Your task to perform on an android device: install app "Facebook" Image 0: 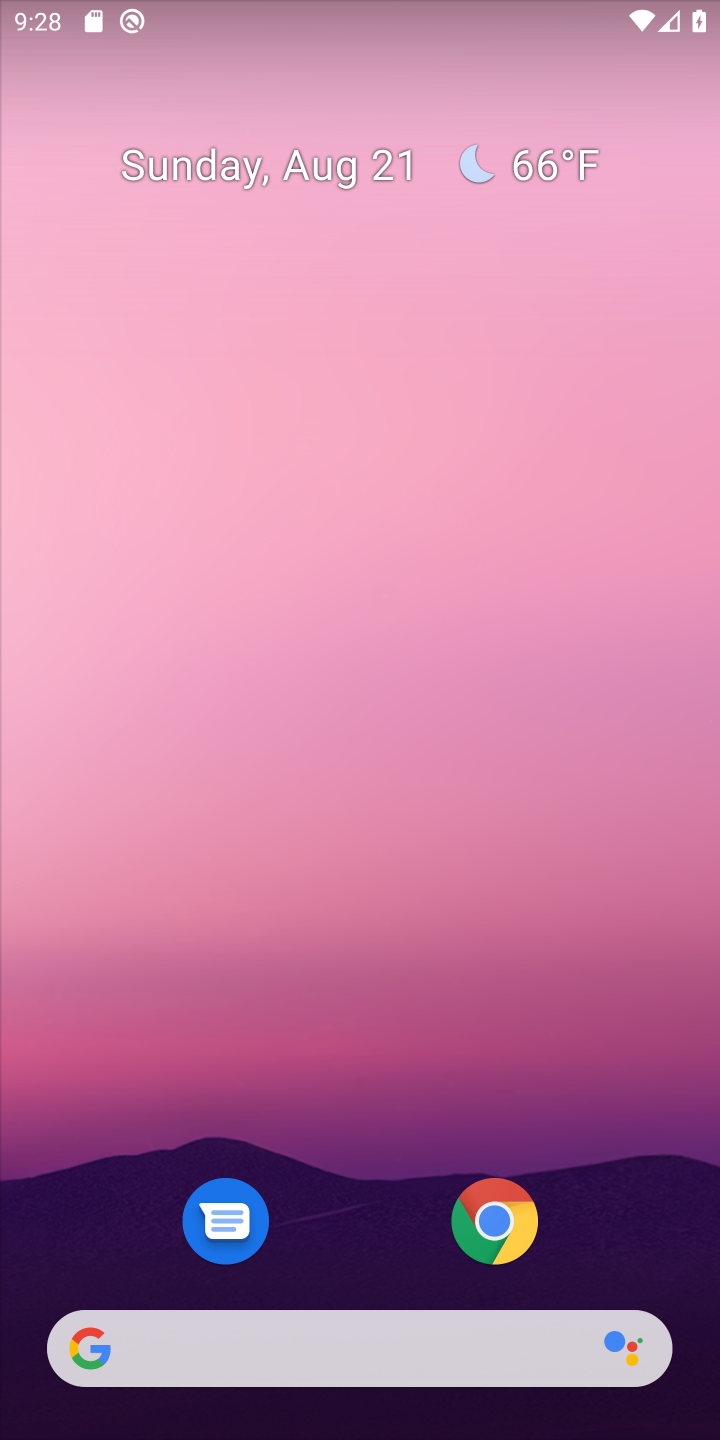
Step 0: drag from (356, 1198) to (316, 316)
Your task to perform on an android device: install app "Facebook" Image 1: 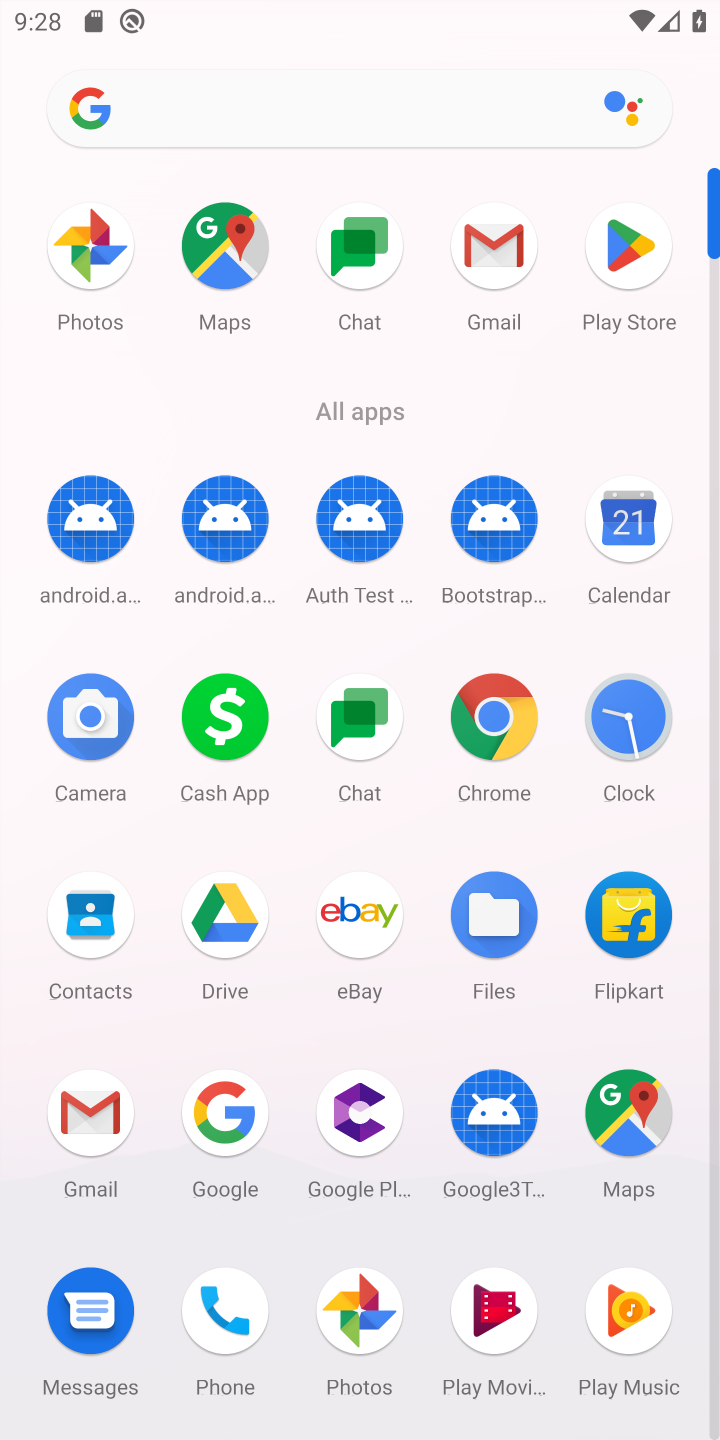
Step 1: click (611, 235)
Your task to perform on an android device: install app "Facebook" Image 2: 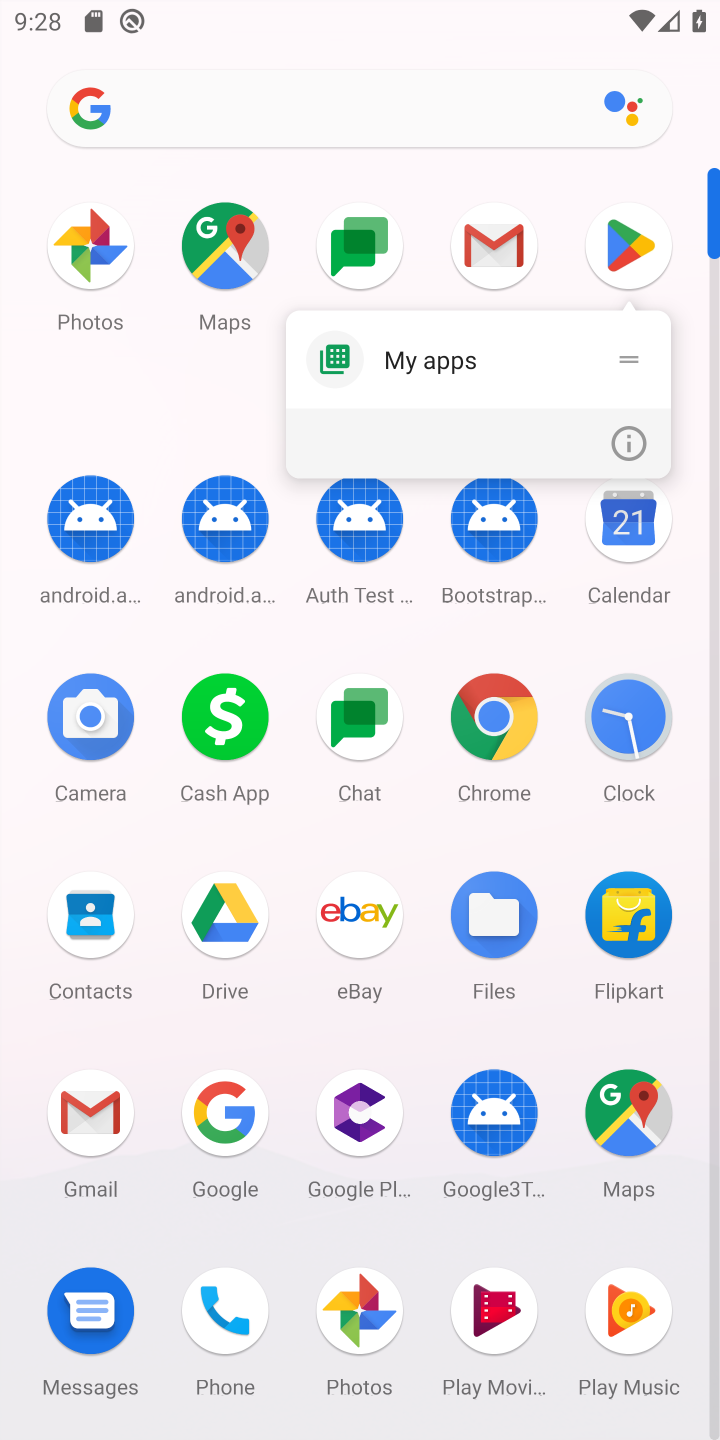
Step 2: click (611, 235)
Your task to perform on an android device: install app "Facebook" Image 3: 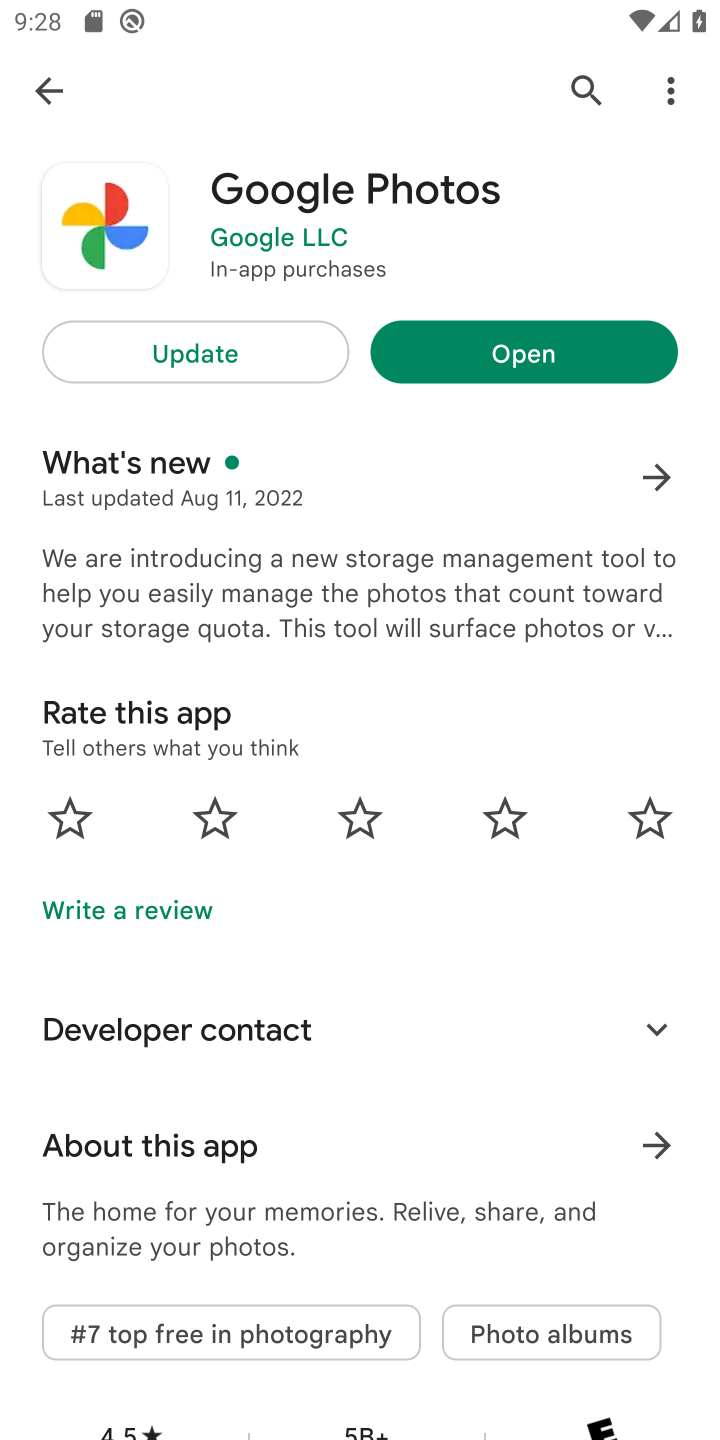
Step 3: click (569, 96)
Your task to perform on an android device: install app "Facebook" Image 4: 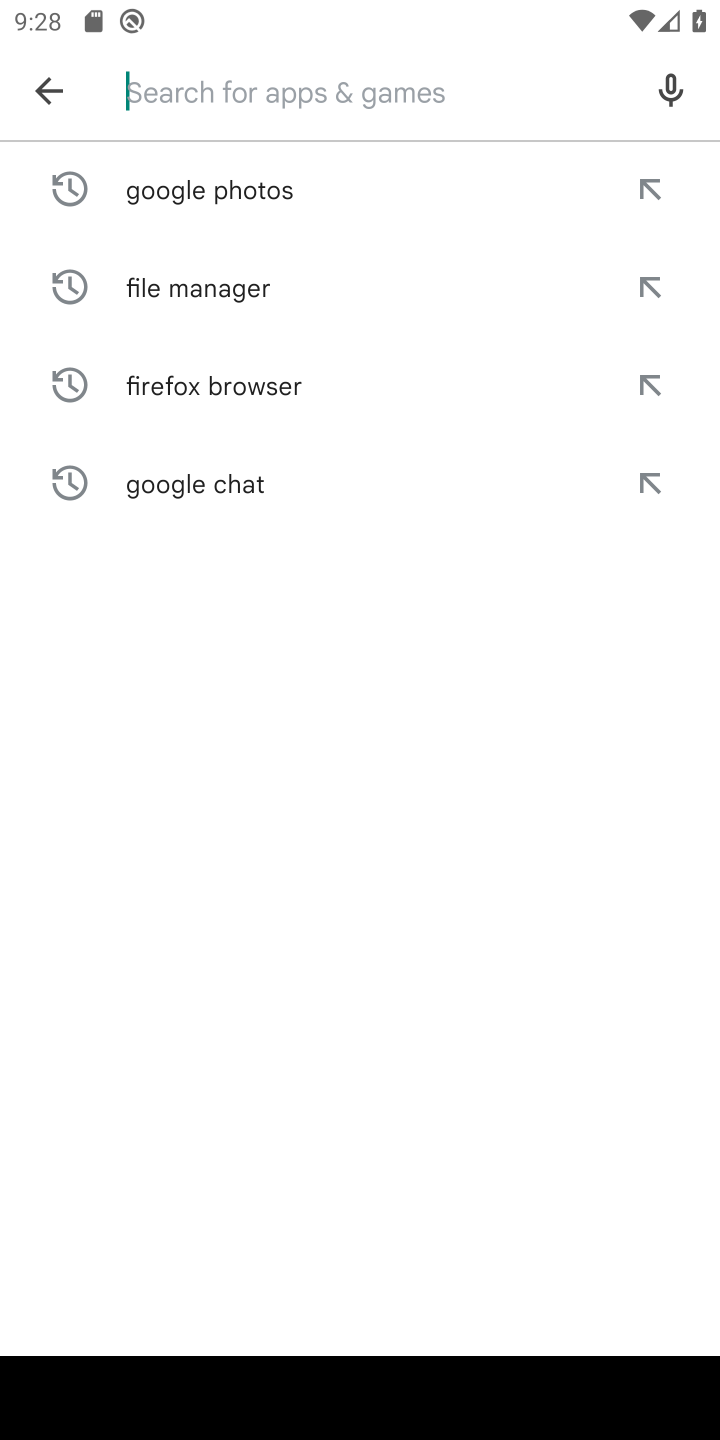
Step 4: type "Facebook"
Your task to perform on an android device: install app "Facebook" Image 5: 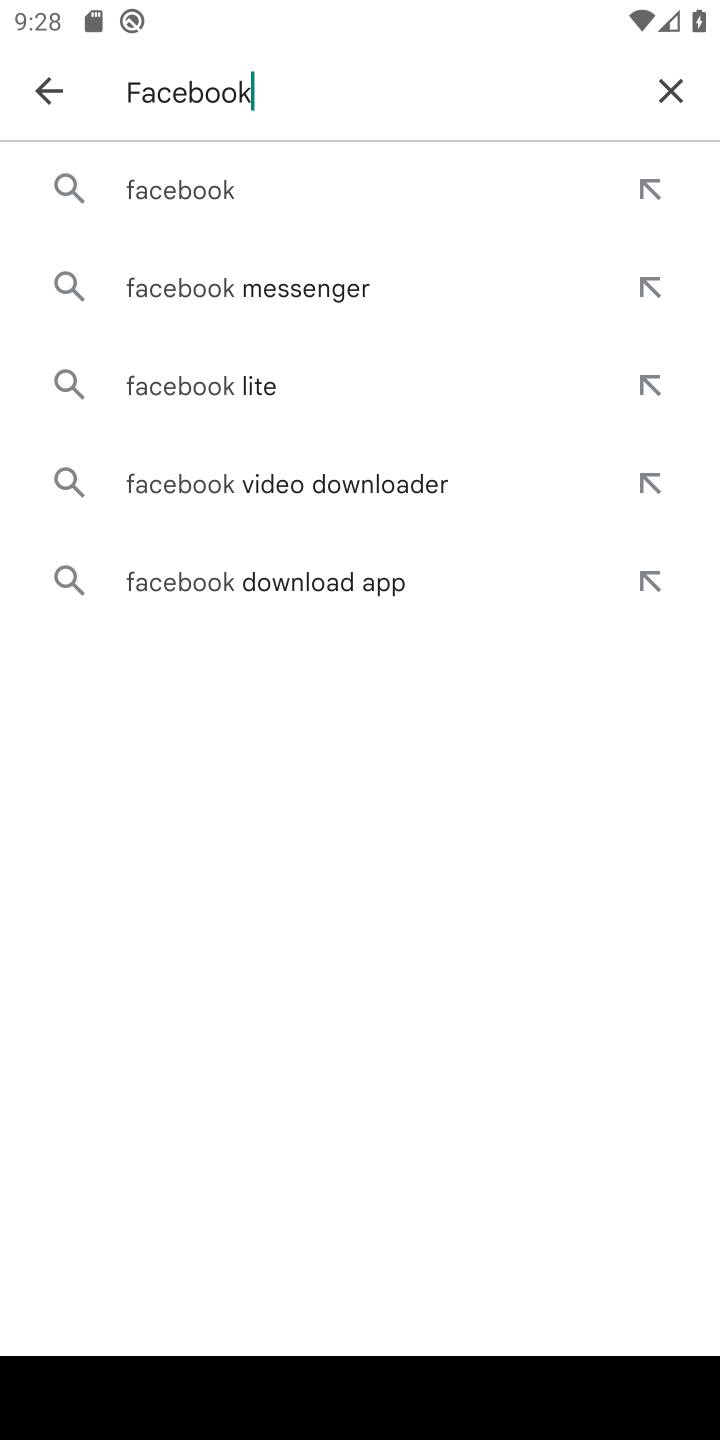
Step 5: type ""
Your task to perform on an android device: install app "Facebook" Image 6: 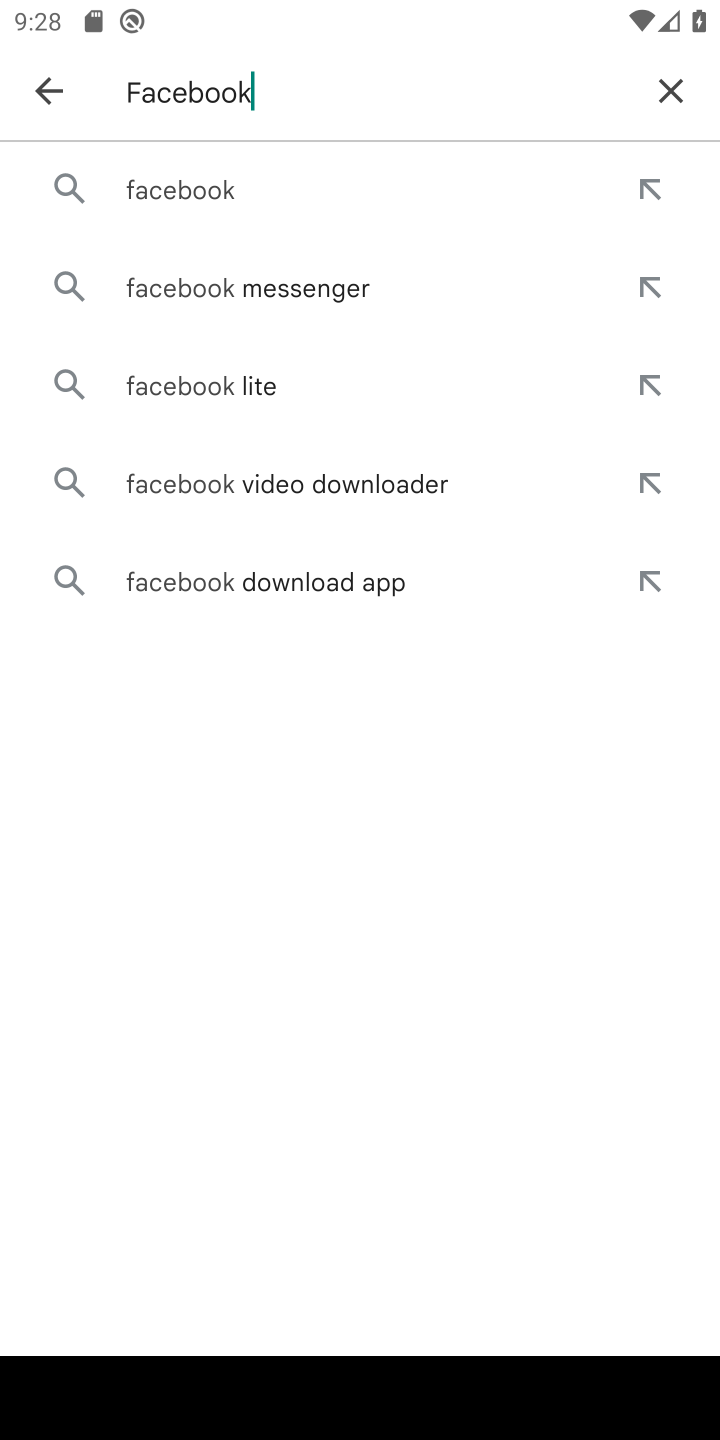
Step 6: click (148, 218)
Your task to perform on an android device: install app "Facebook" Image 7: 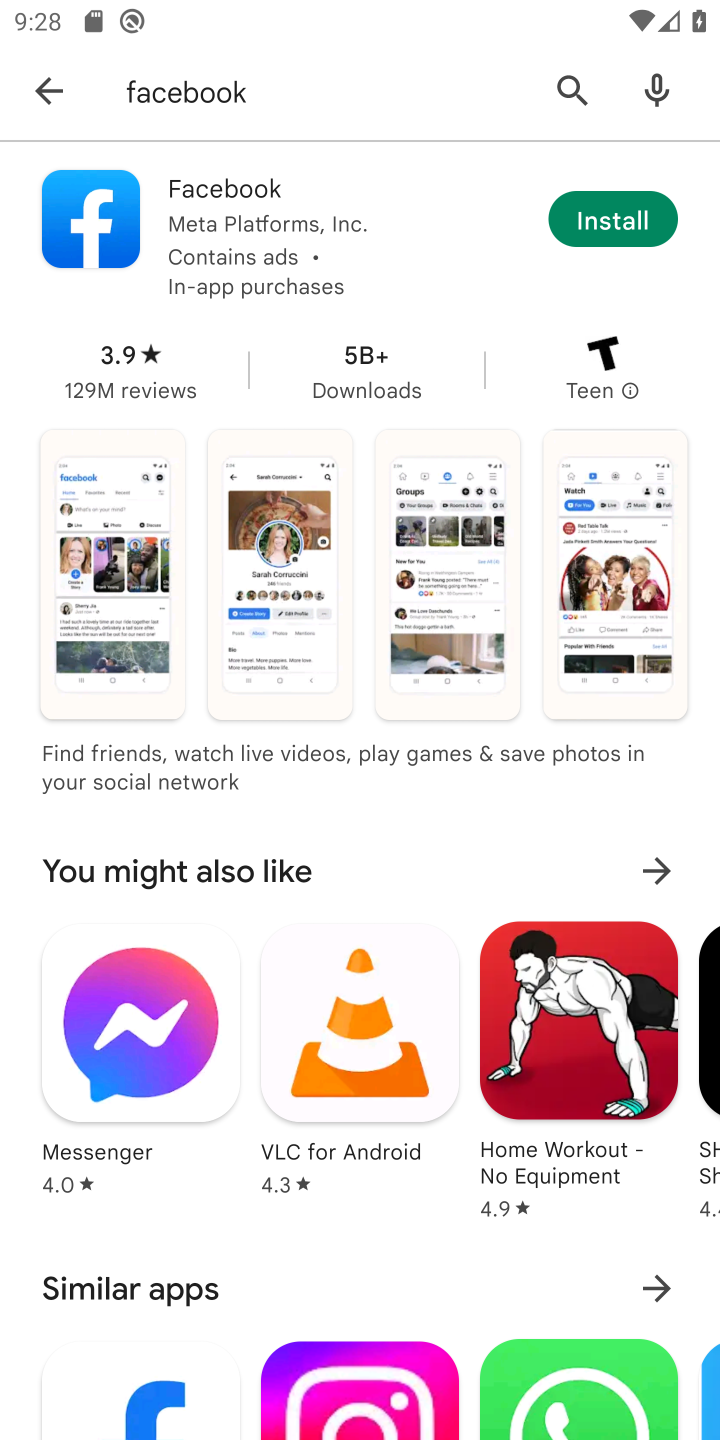
Step 7: click (643, 191)
Your task to perform on an android device: install app "Facebook" Image 8: 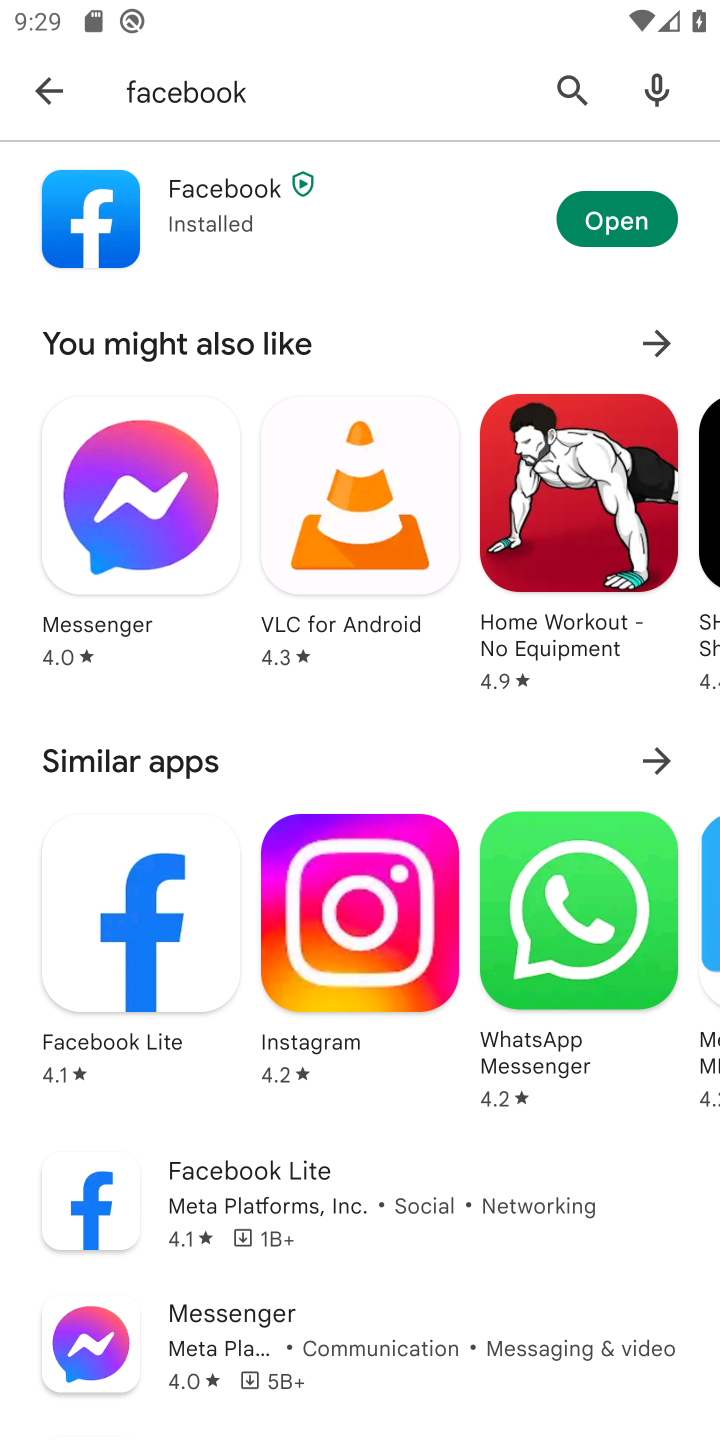
Step 8: task complete